Your task to perform on an android device: Do I have any events tomorrow? Image 0: 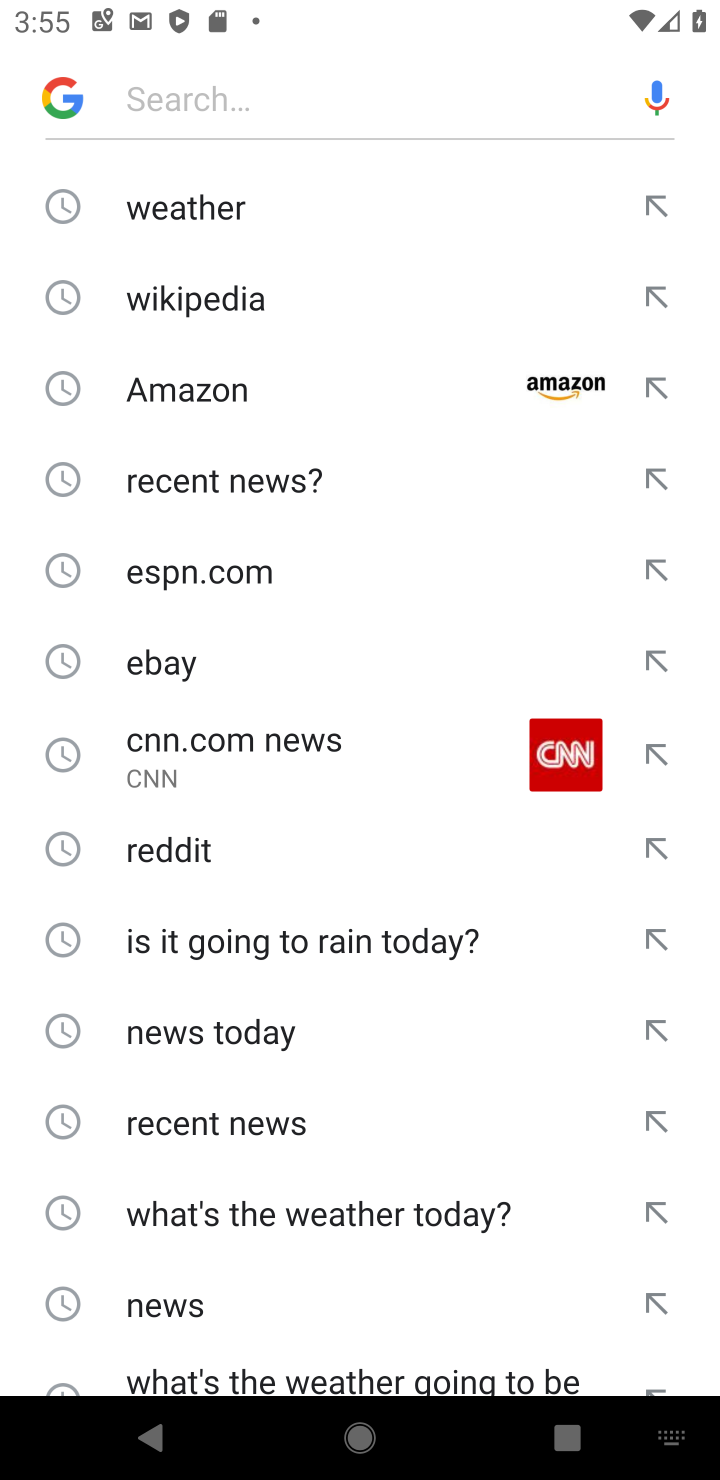
Step 0: press home button
Your task to perform on an android device: Do I have any events tomorrow? Image 1: 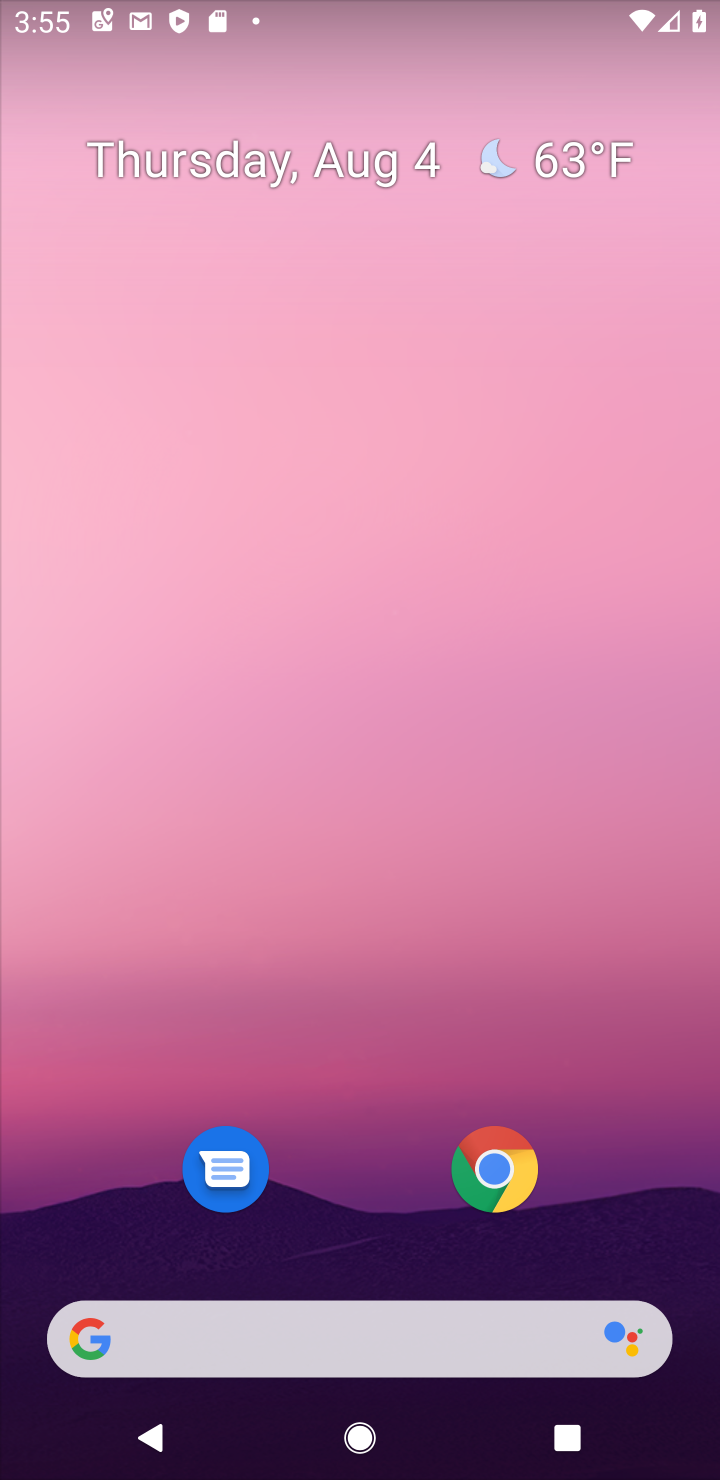
Step 1: drag from (361, 1146) to (384, 115)
Your task to perform on an android device: Do I have any events tomorrow? Image 2: 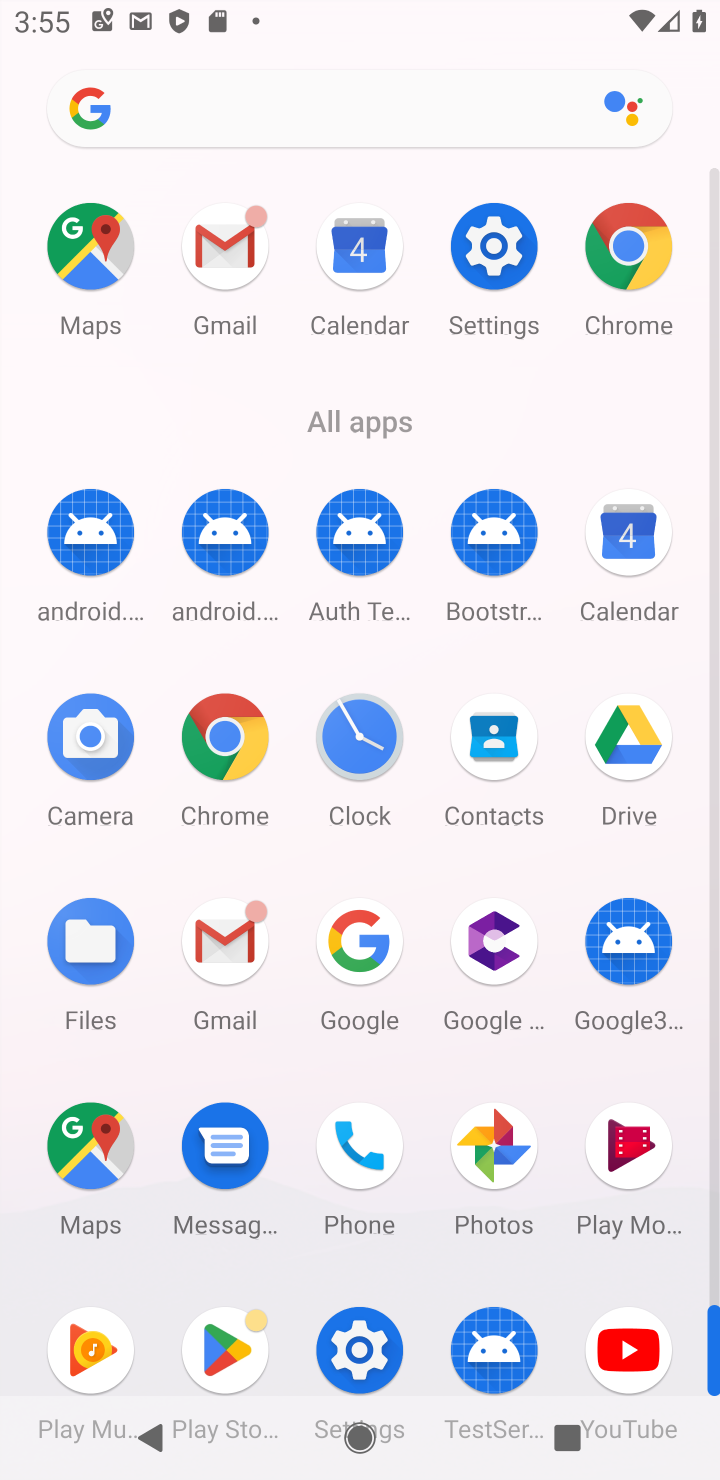
Step 2: click (619, 543)
Your task to perform on an android device: Do I have any events tomorrow? Image 3: 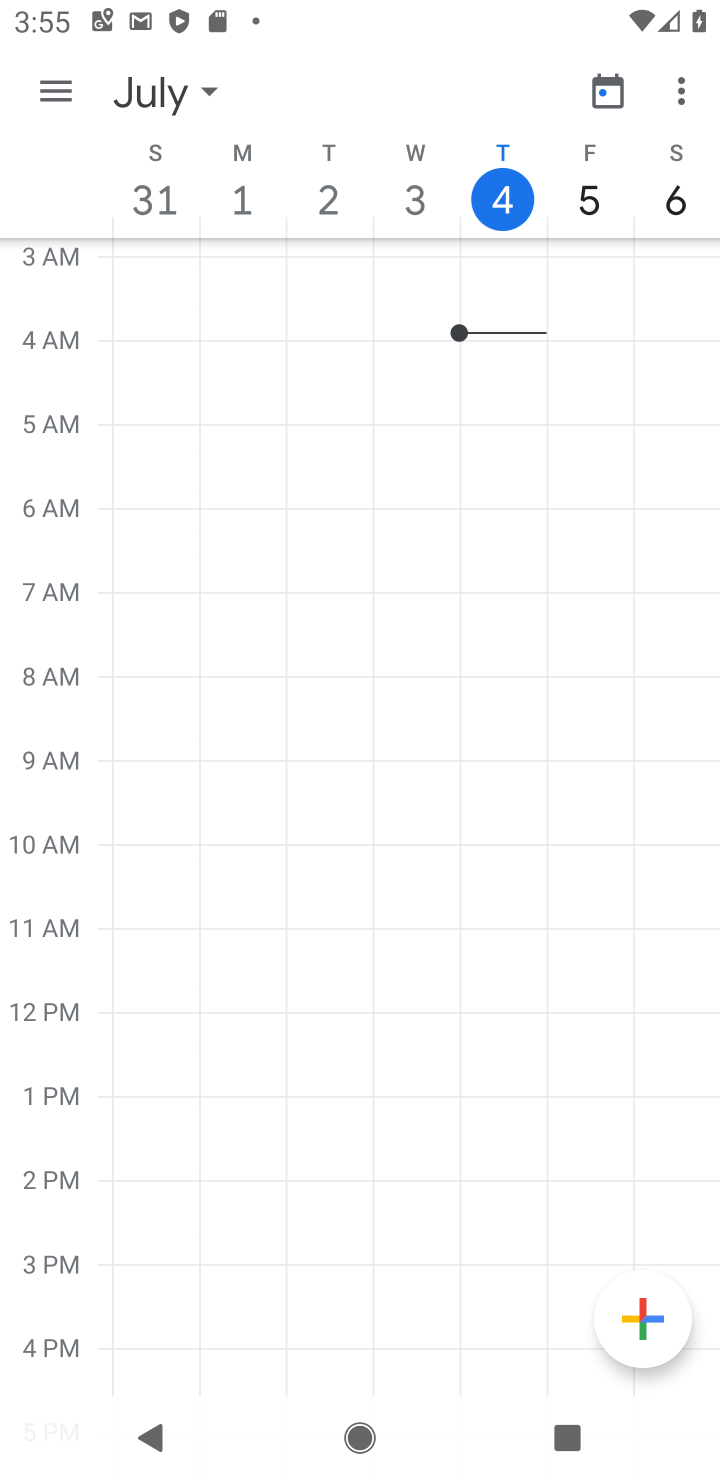
Step 3: click (43, 80)
Your task to perform on an android device: Do I have any events tomorrow? Image 4: 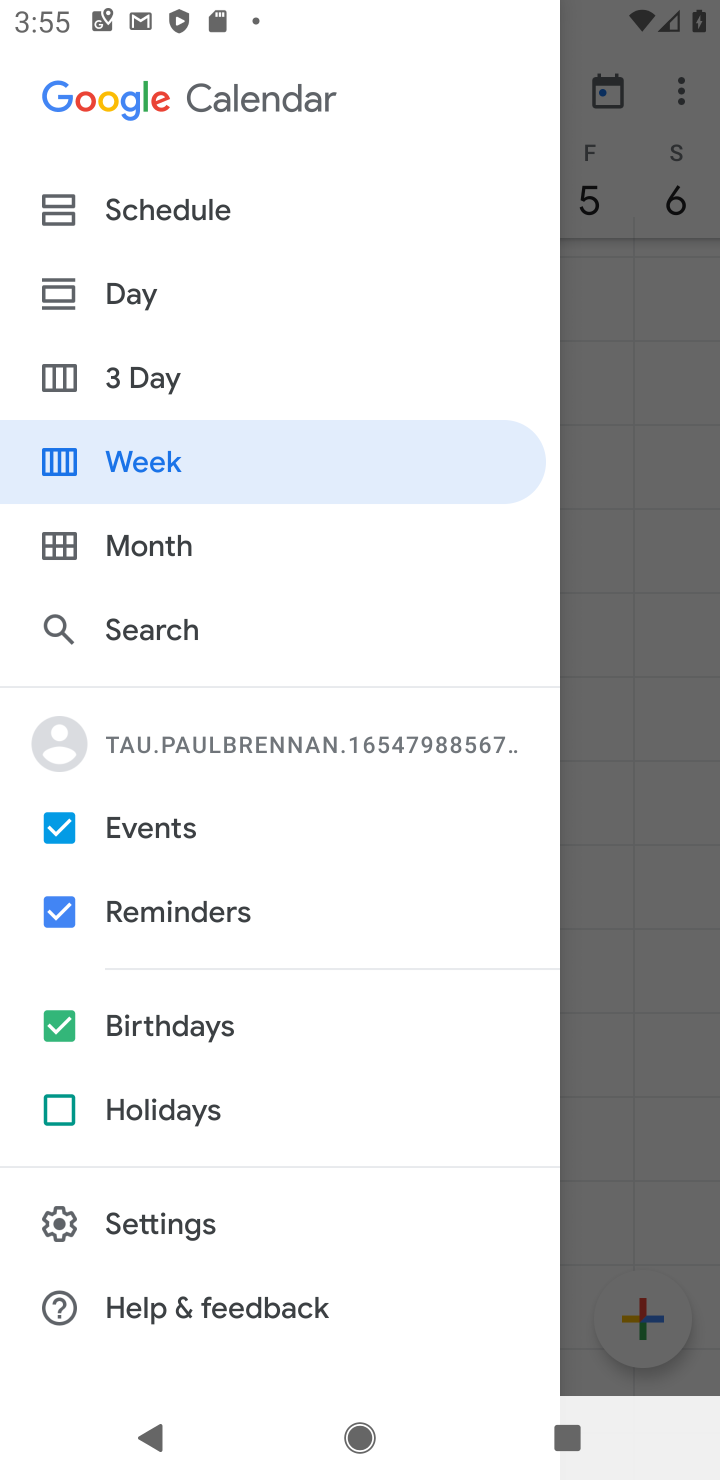
Step 4: click (185, 924)
Your task to perform on an android device: Do I have any events tomorrow? Image 5: 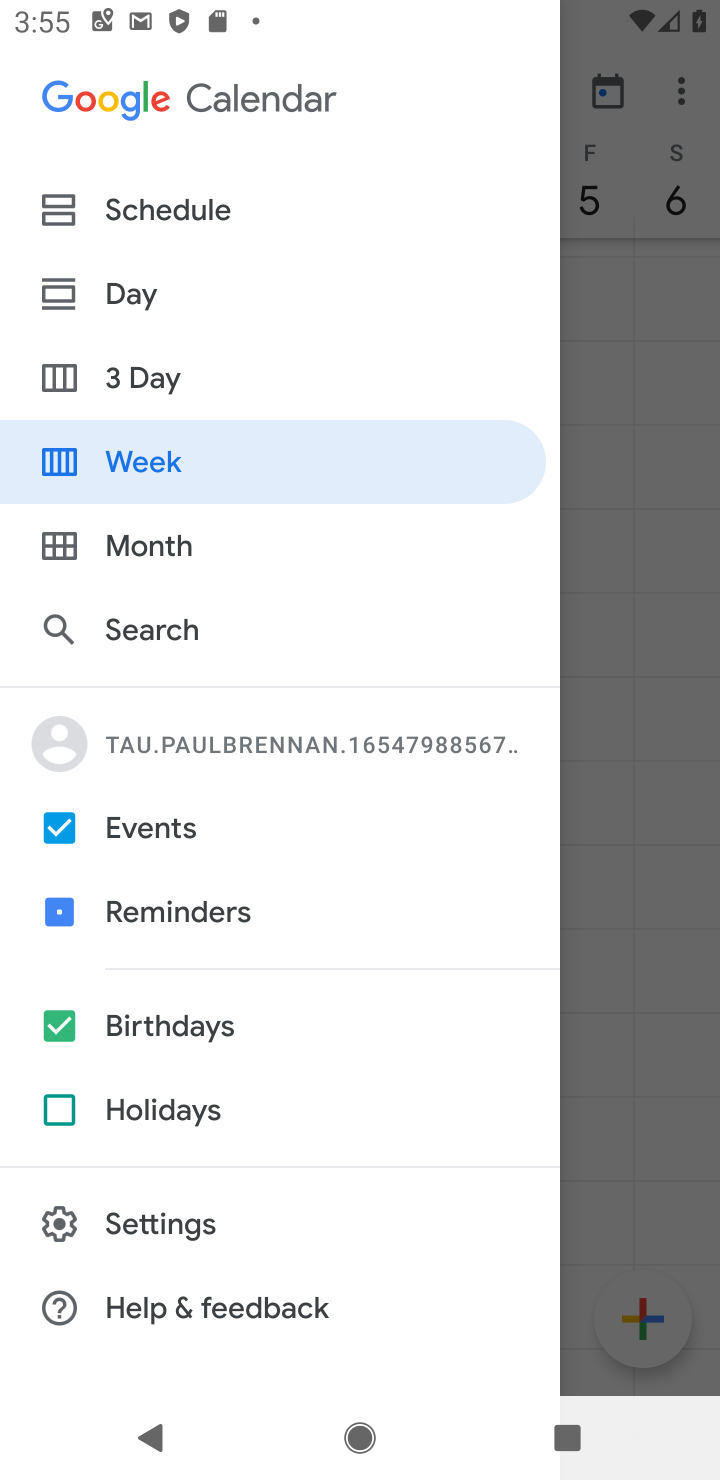
Step 5: click (162, 1021)
Your task to perform on an android device: Do I have any events tomorrow? Image 6: 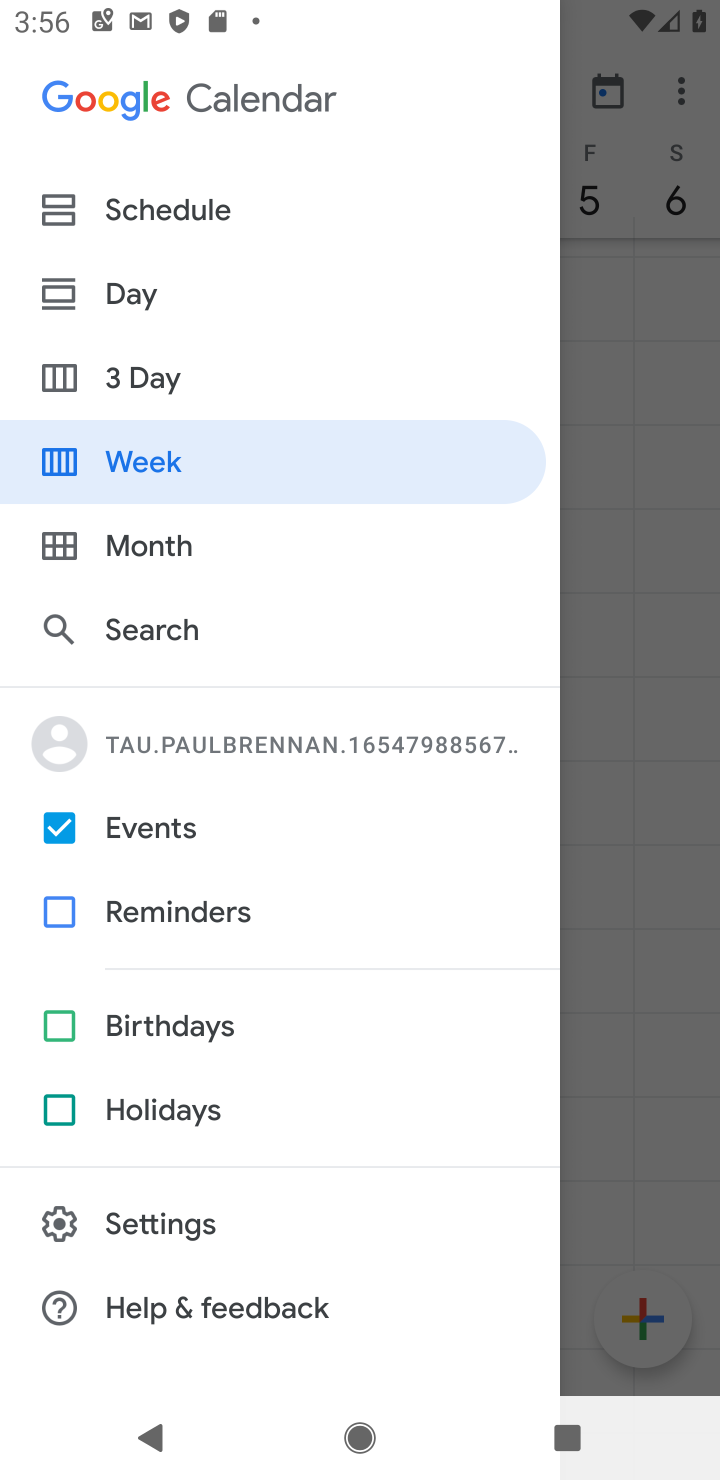
Step 6: click (158, 382)
Your task to perform on an android device: Do I have any events tomorrow? Image 7: 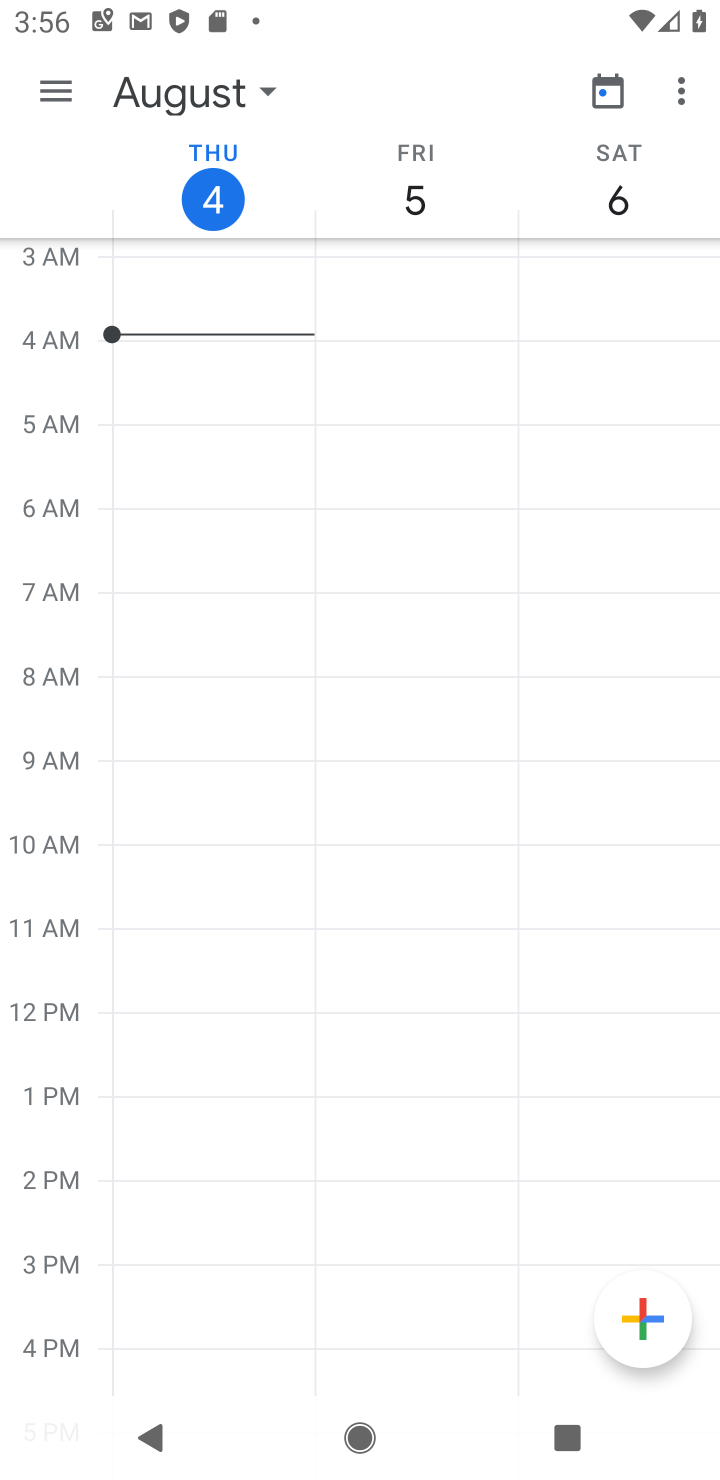
Step 7: task complete